Your task to perform on an android device: allow notifications from all sites in the chrome app Image 0: 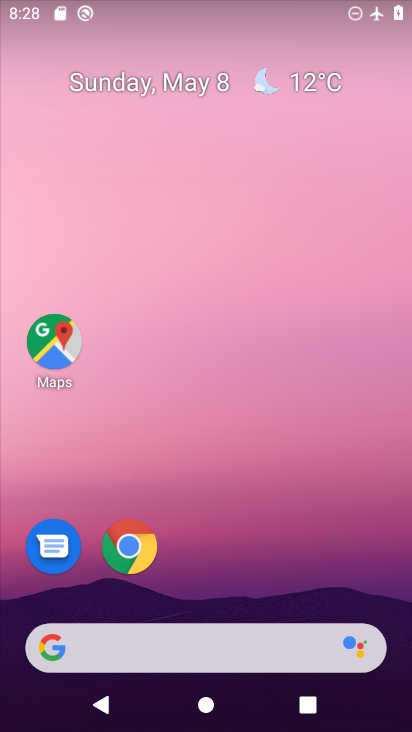
Step 0: click (148, 535)
Your task to perform on an android device: allow notifications from all sites in the chrome app Image 1: 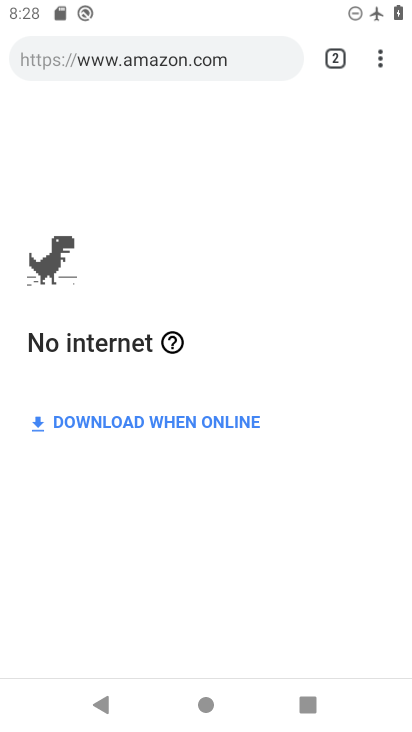
Step 1: click (381, 58)
Your task to perform on an android device: allow notifications from all sites in the chrome app Image 2: 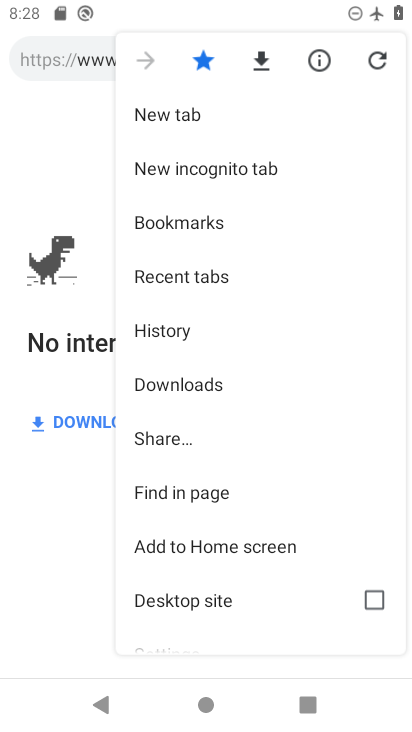
Step 2: drag from (245, 457) to (268, 167)
Your task to perform on an android device: allow notifications from all sites in the chrome app Image 3: 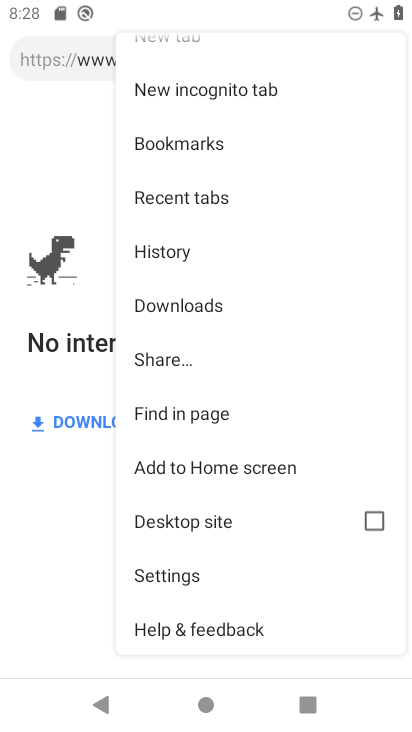
Step 3: click (178, 563)
Your task to perform on an android device: allow notifications from all sites in the chrome app Image 4: 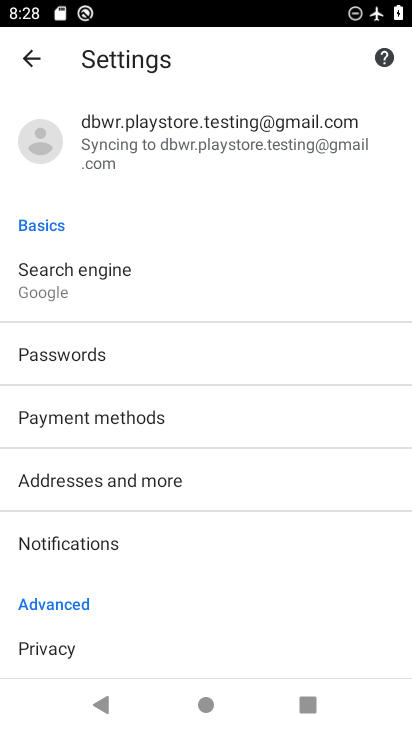
Step 4: drag from (248, 598) to (259, 202)
Your task to perform on an android device: allow notifications from all sites in the chrome app Image 5: 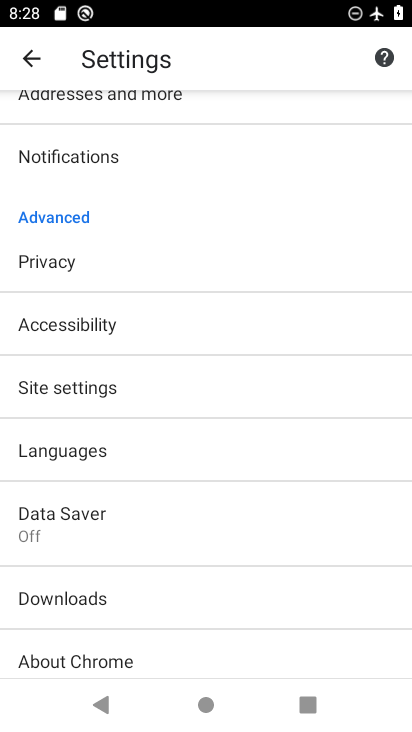
Step 5: click (211, 142)
Your task to perform on an android device: allow notifications from all sites in the chrome app Image 6: 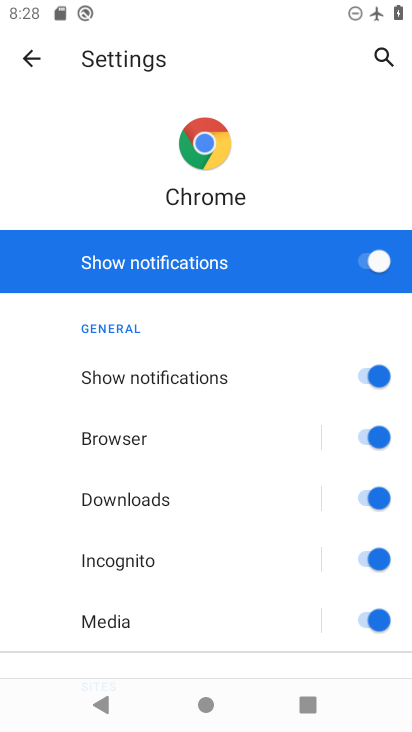
Step 6: task complete